Your task to perform on an android device: turn notification dots on Image 0: 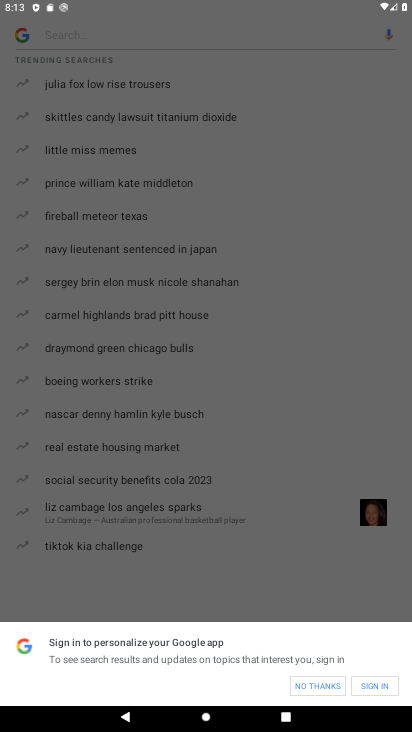
Step 0: press back button
Your task to perform on an android device: turn notification dots on Image 1: 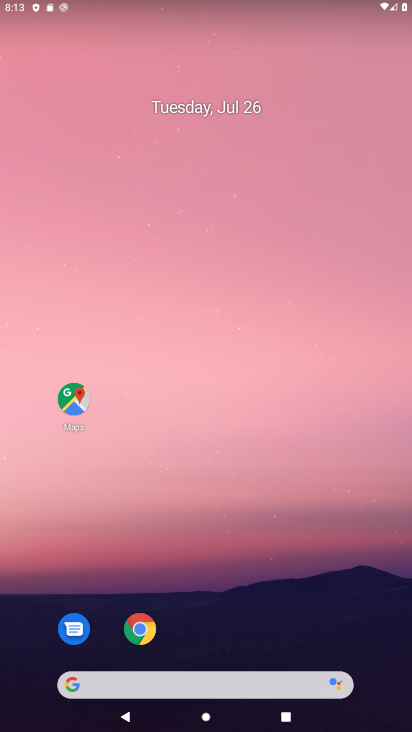
Step 1: drag from (182, 649) to (192, 97)
Your task to perform on an android device: turn notification dots on Image 2: 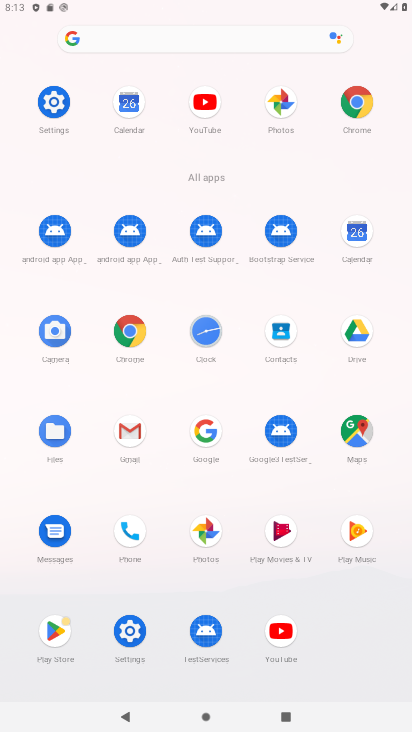
Step 2: click (39, 98)
Your task to perform on an android device: turn notification dots on Image 3: 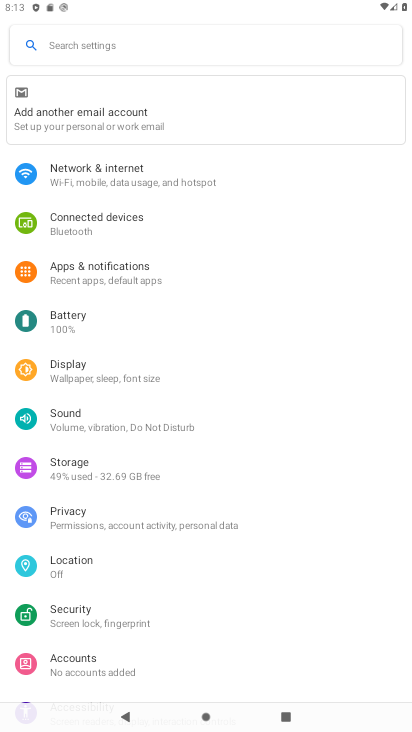
Step 3: click (116, 259)
Your task to perform on an android device: turn notification dots on Image 4: 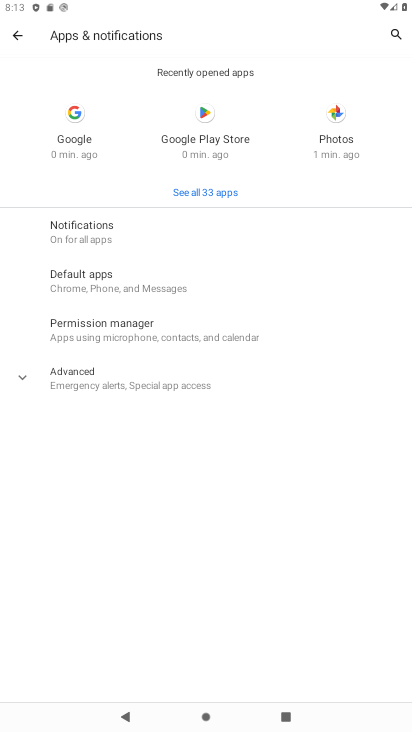
Step 4: click (105, 230)
Your task to perform on an android device: turn notification dots on Image 5: 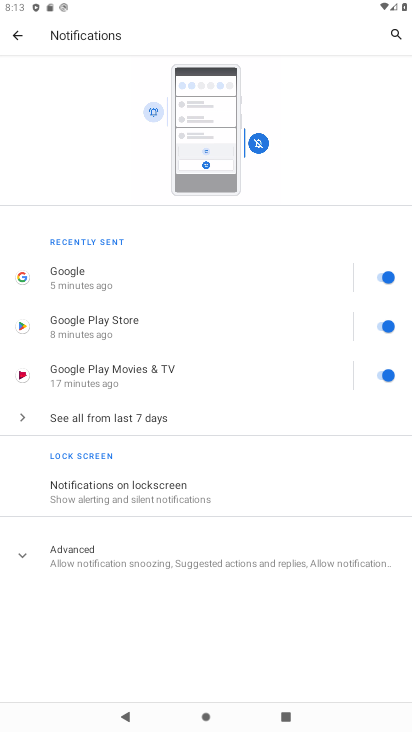
Step 5: click (159, 535)
Your task to perform on an android device: turn notification dots on Image 6: 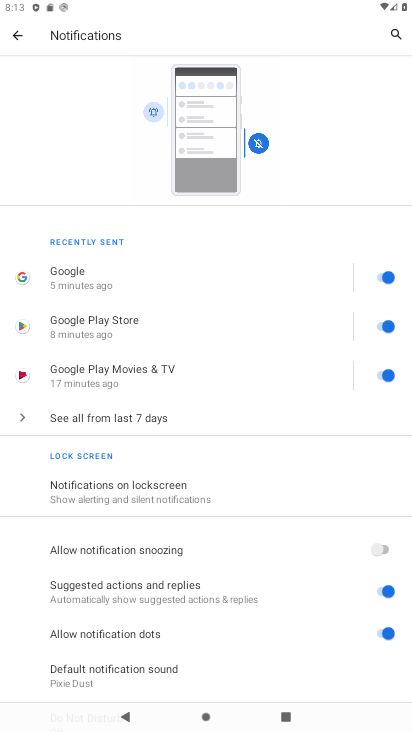
Step 6: task complete